Your task to perform on an android device: open sync settings in chrome Image 0: 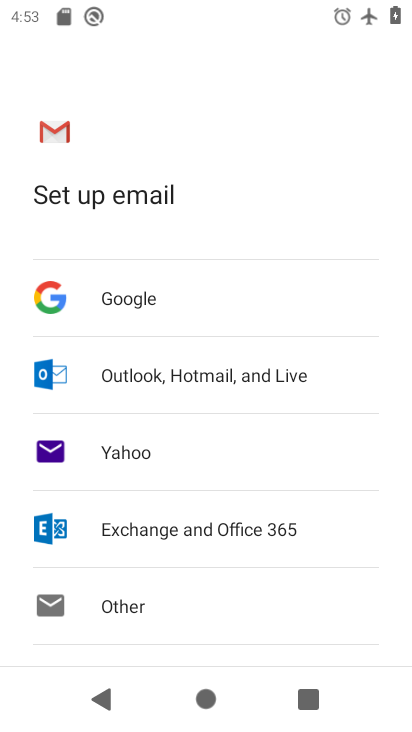
Step 0: press home button
Your task to perform on an android device: open sync settings in chrome Image 1: 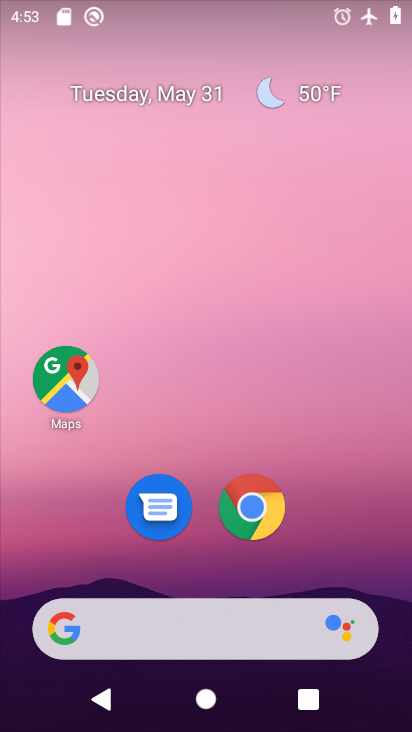
Step 1: click (269, 502)
Your task to perform on an android device: open sync settings in chrome Image 2: 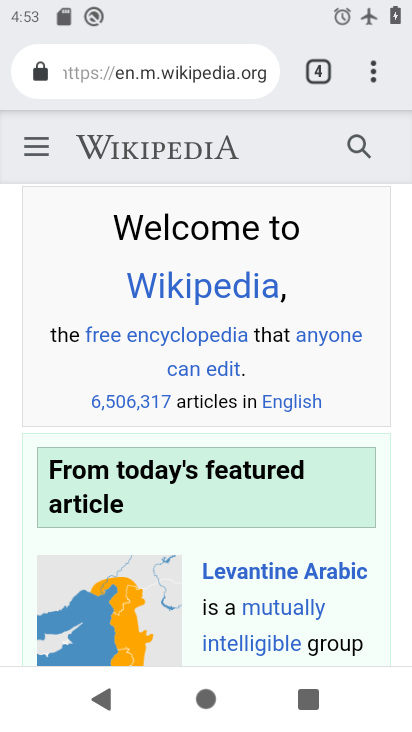
Step 2: click (372, 76)
Your task to perform on an android device: open sync settings in chrome Image 3: 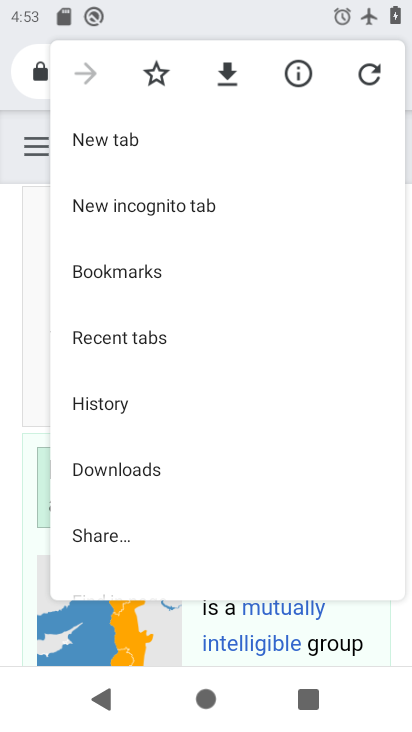
Step 3: drag from (258, 511) to (233, 119)
Your task to perform on an android device: open sync settings in chrome Image 4: 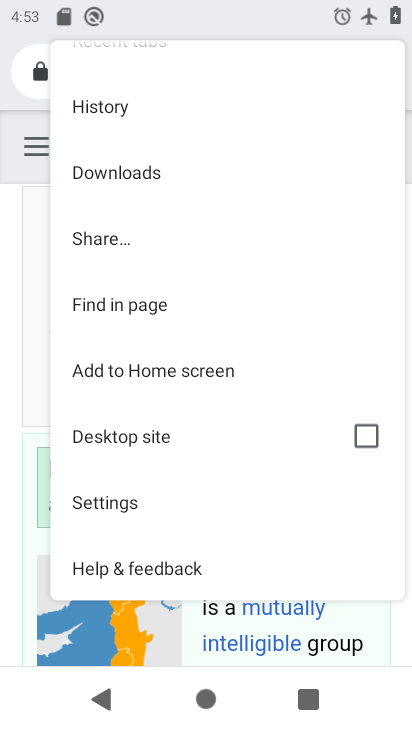
Step 4: click (171, 492)
Your task to perform on an android device: open sync settings in chrome Image 5: 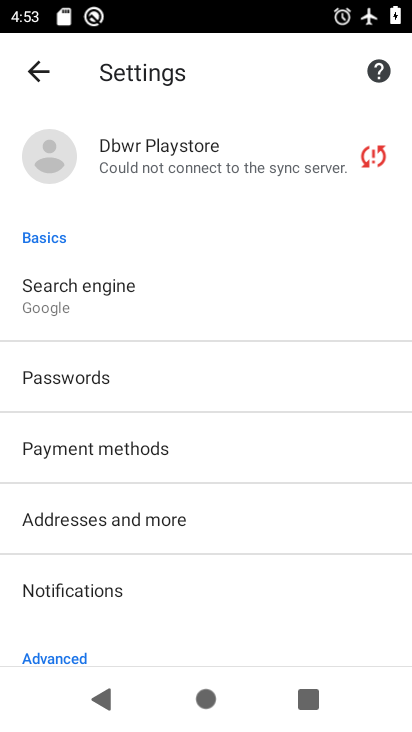
Step 5: click (197, 151)
Your task to perform on an android device: open sync settings in chrome Image 6: 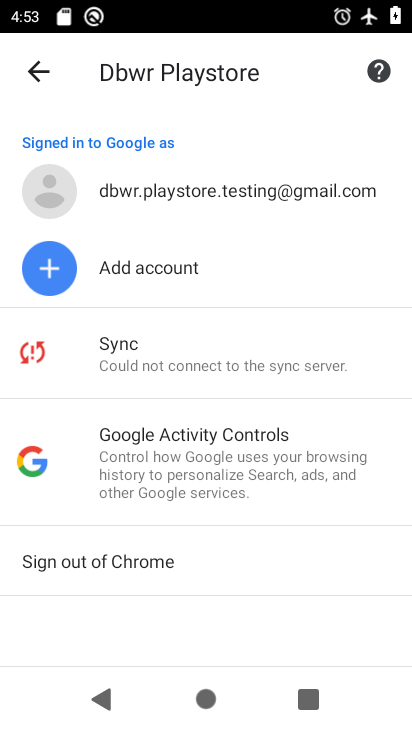
Step 6: click (146, 344)
Your task to perform on an android device: open sync settings in chrome Image 7: 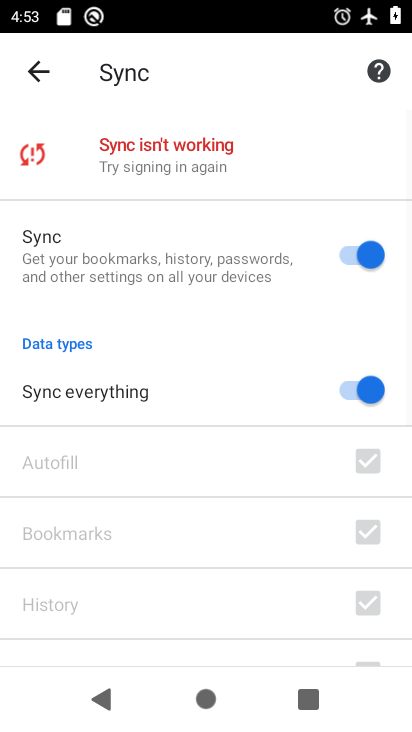
Step 7: task complete